Your task to perform on an android device: show emergency info Image 0: 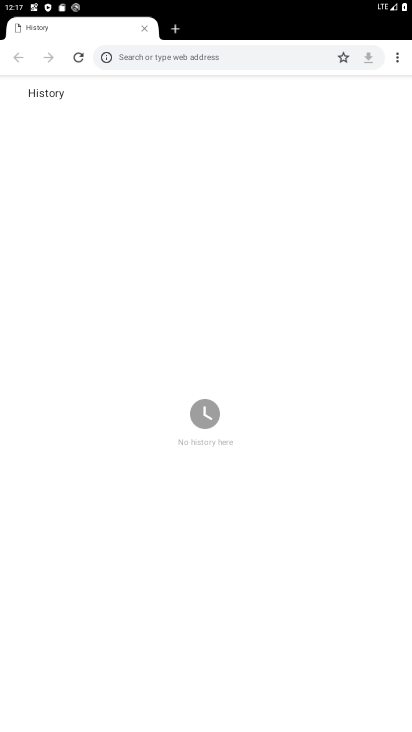
Step 0: press home button
Your task to perform on an android device: show emergency info Image 1: 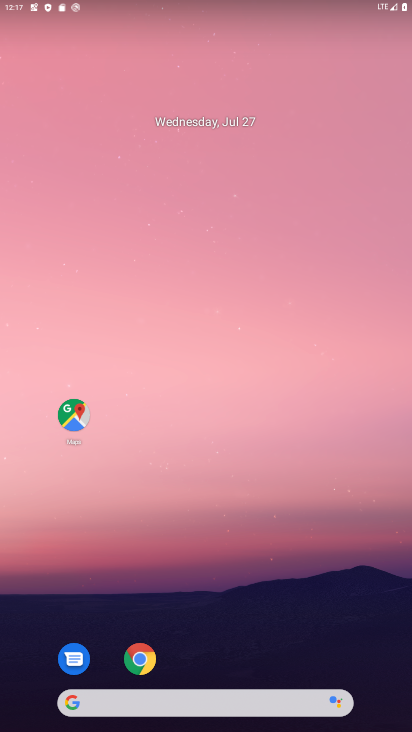
Step 1: drag from (153, 205) to (153, 171)
Your task to perform on an android device: show emergency info Image 2: 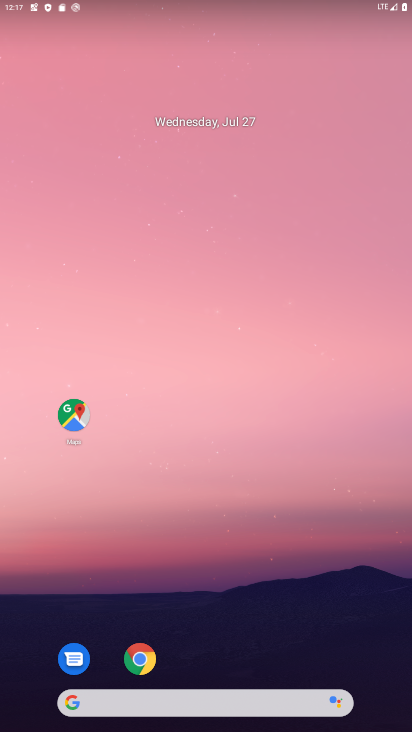
Step 2: drag from (203, 618) to (203, 152)
Your task to perform on an android device: show emergency info Image 3: 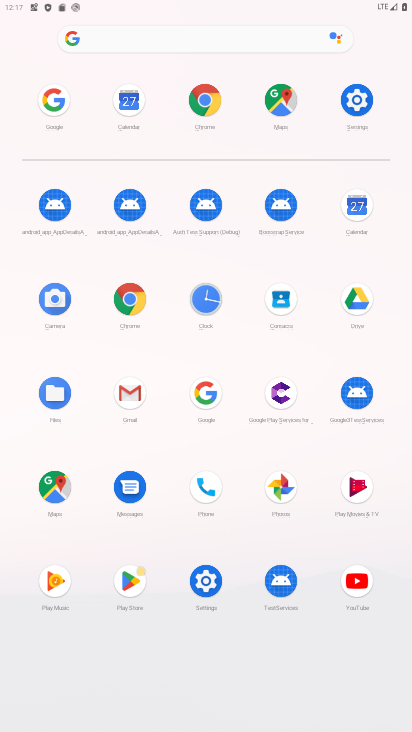
Step 3: click (195, 575)
Your task to perform on an android device: show emergency info Image 4: 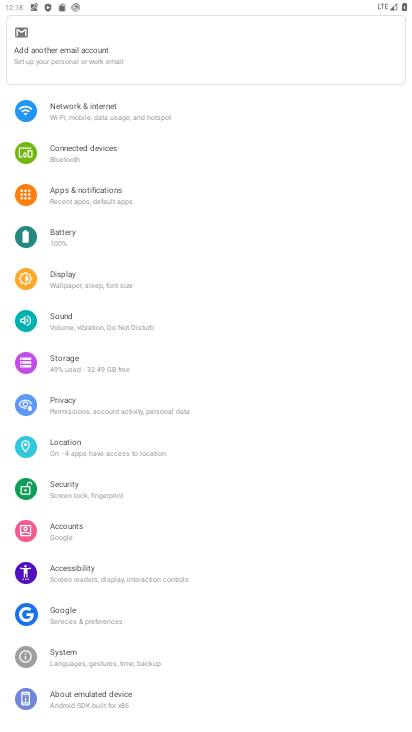
Step 4: click (143, 419)
Your task to perform on an android device: show emergency info Image 5: 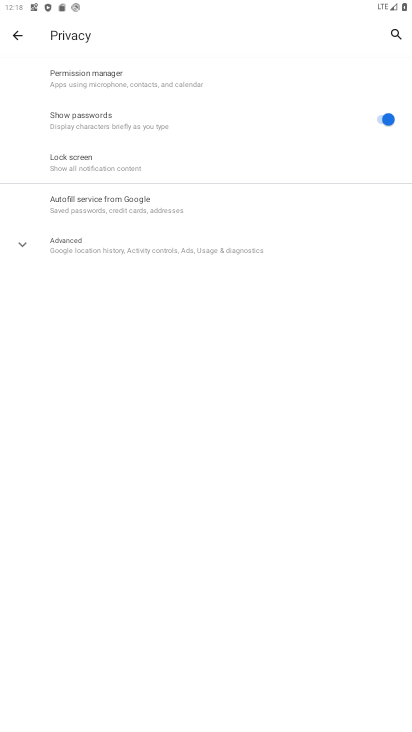
Step 5: task complete